Your task to perform on an android device: See recent photos Image 0: 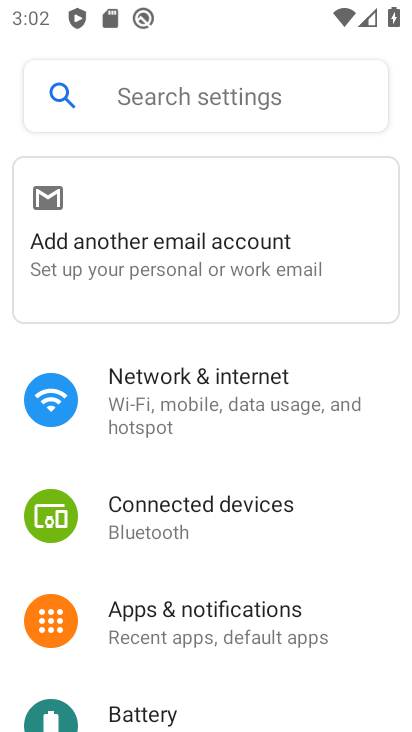
Step 0: press home button
Your task to perform on an android device: See recent photos Image 1: 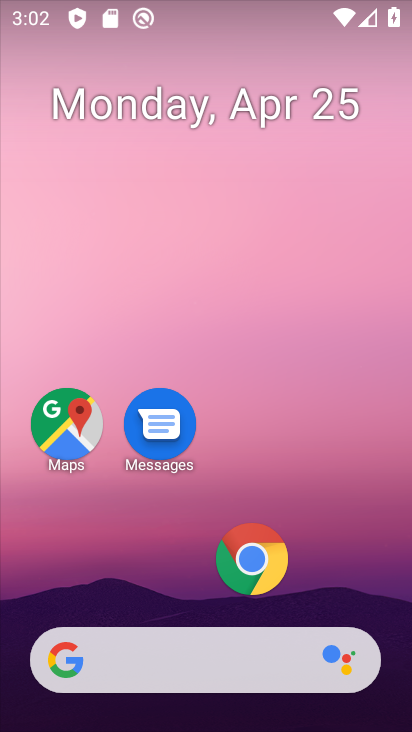
Step 1: drag from (161, 485) to (197, 75)
Your task to perform on an android device: See recent photos Image 2: 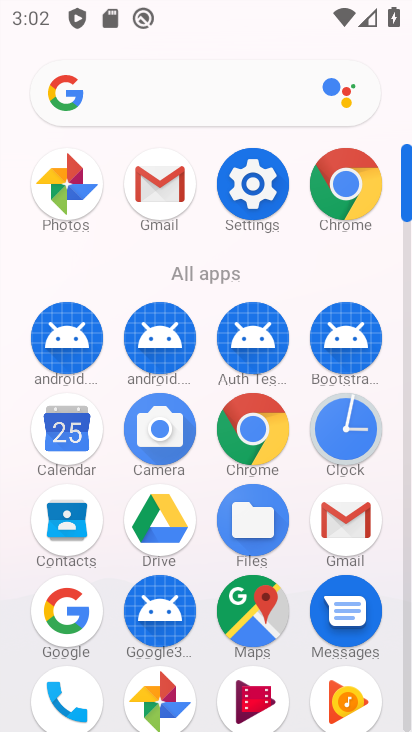
Step 2: click (166, 693)
Your task to perform on an android device: See recent photos Image 3: 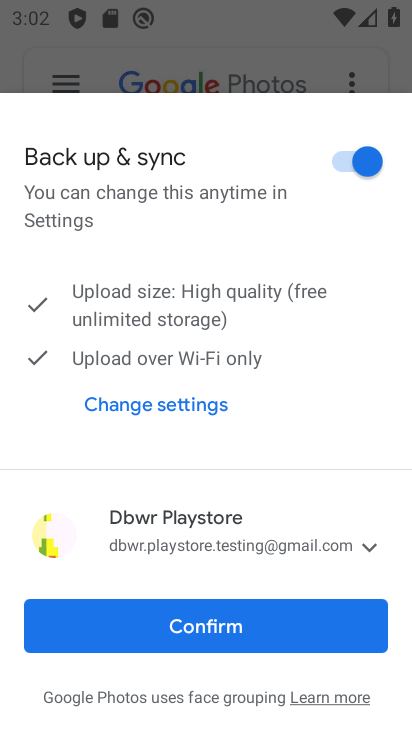
Step 3: click (207, 618)
Your task to perform on an android device: See recent photos Image 4: 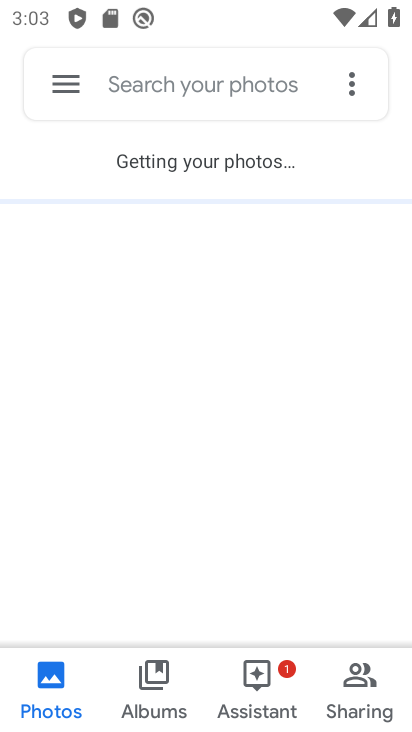
Step 4: task complete